Your task to perform on an android device: turn on data saver in the chrome app Image 0: 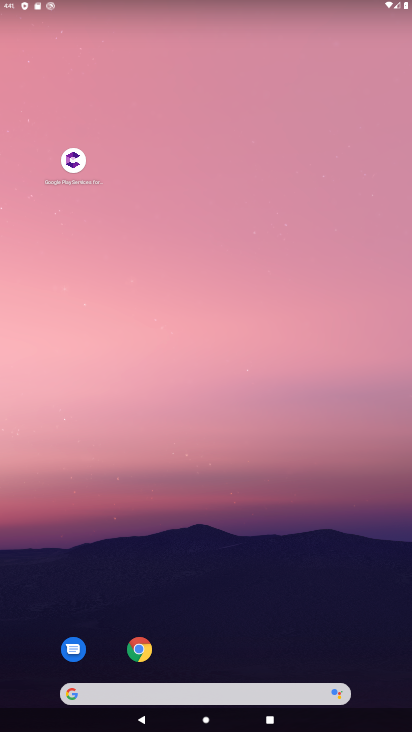
Step 0: click (129, 652)
Your task to perform on an android device: turn on data saver in the chrome app Image 1: 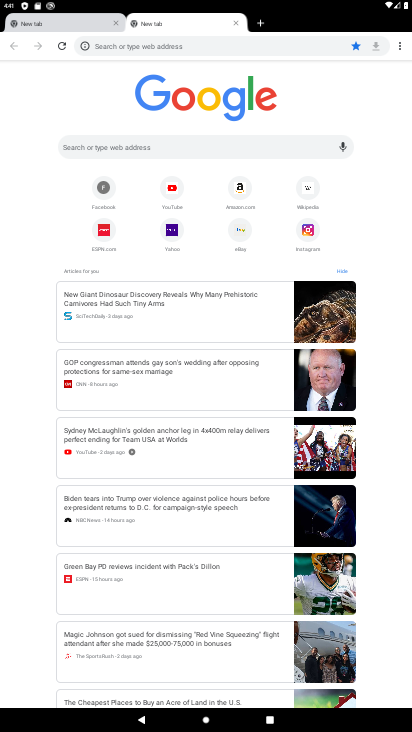
Step 1: click (400, 51)
Your task to perform on an android device: turn on data saver in the chrome app Image 2: 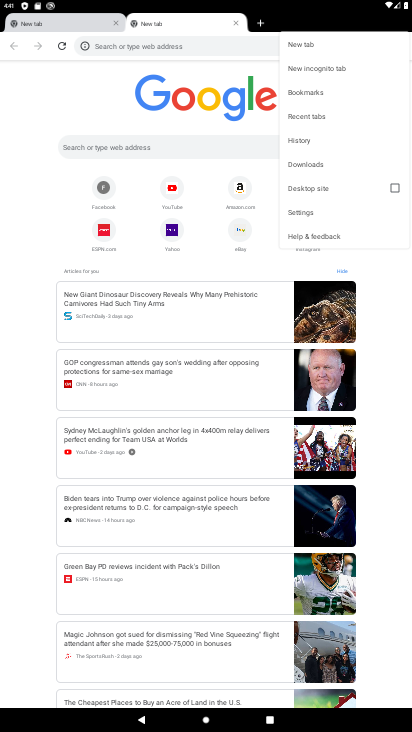
Step 2: click (297, 217)
Your task to perform on an android device: turn on data saver in the chrome app Image 3: 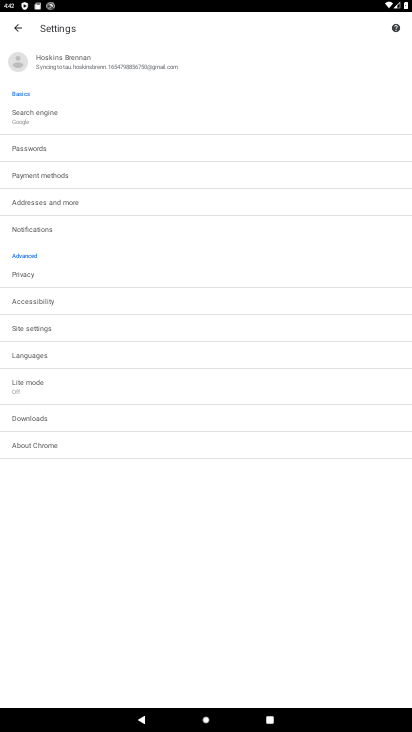
Step 3: click (18, 381)
Your task to perform on an android device: turn on data saver in the chrome app Image 4: 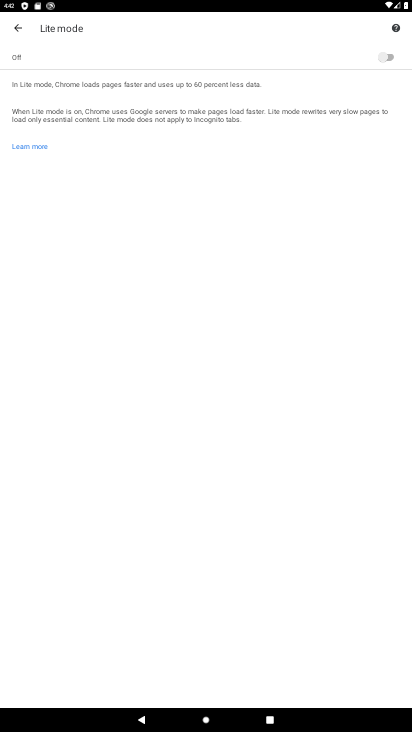
Step 4: click (391, 55)
Your task to perform on an android device: turn on data saver in the chrome app Image 5: 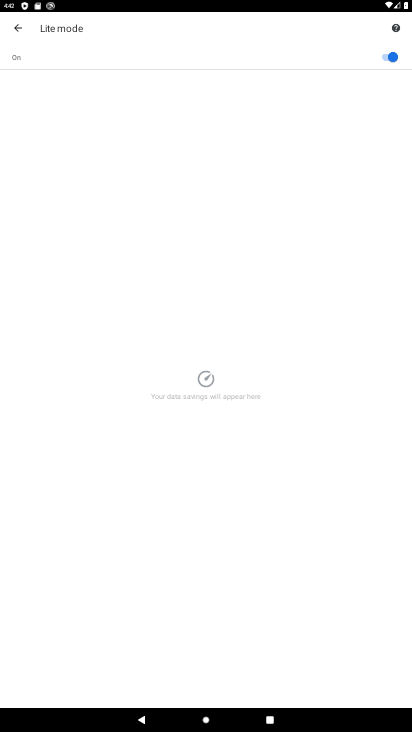
Step 5: task complete